Your task to perform on an android device: toggle improve location accuracy Image 0: 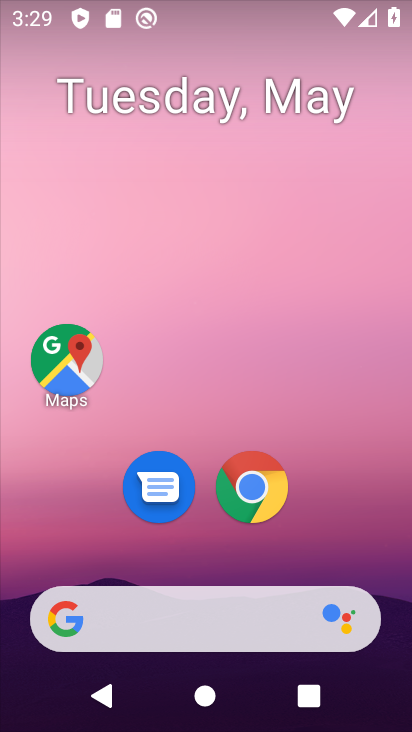
Step 0: drag from (208, 547) to (262, 78)
Your task to perform on an android device: toggle improve location accuracy Image 1: 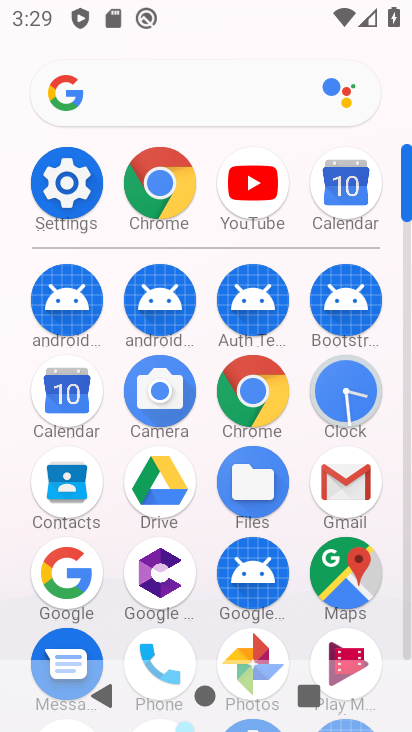
Step 1: click (68, 179)
Your task to perform on an android device: toggle improve location accuracy Image 2: 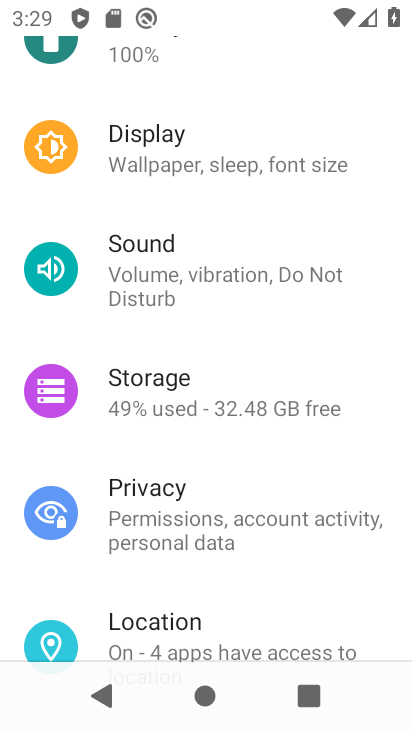
Step 2: click (216, 625)
Your task to perform on an android device: toggle improve location accuracy Image 3: 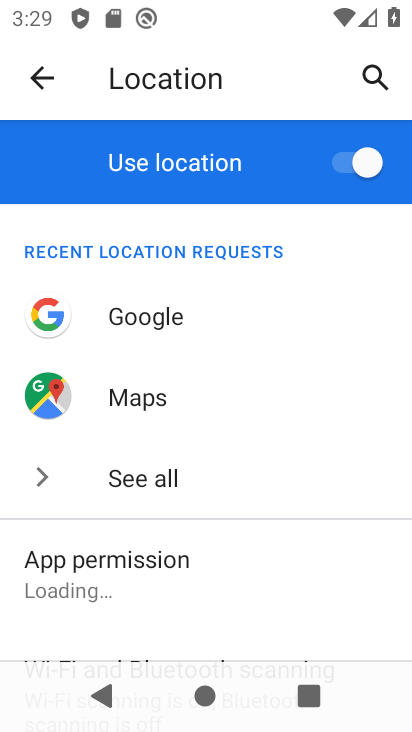
Step 3: drag from (167, 619) to (193, 406)
Your task to perform on an android device: toggle improve location accuracy Image 4: 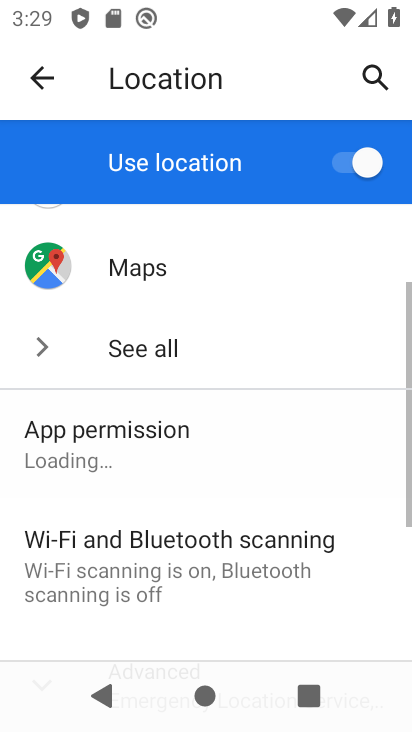
Step 4: drag from (214, 295) to (227, 196)
Your task to perform on an android device: toggle improve location accuracy Image 5: 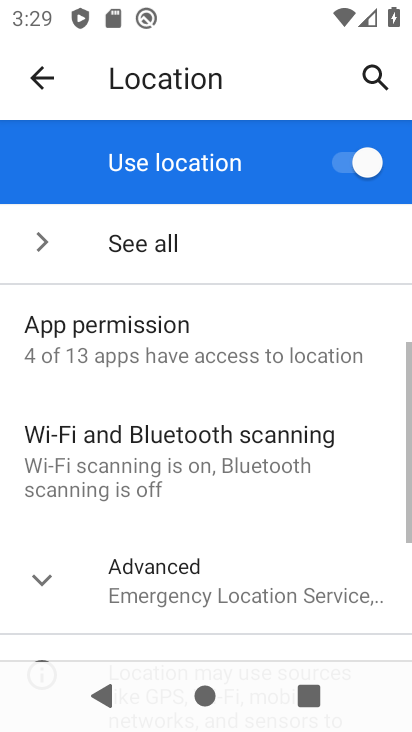
Step 5: click (39, 576)
Your task to perform on an android device: toggle improve location accuracy Image 6: 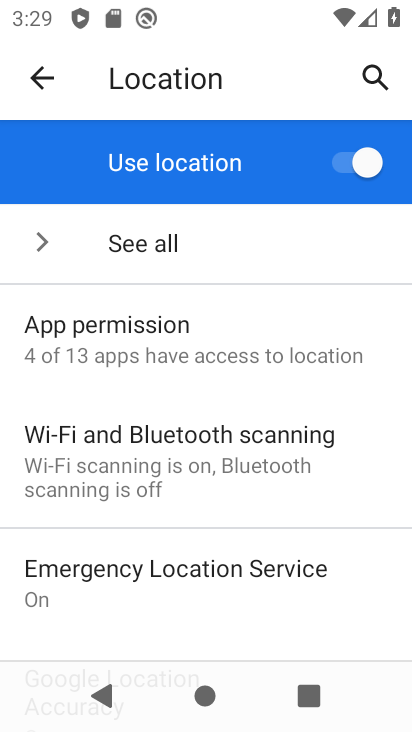
Step 6: drag from (243, 609) to (287, 177)
Your task to perform on an android device: toggle improve location accuracy Image 7: 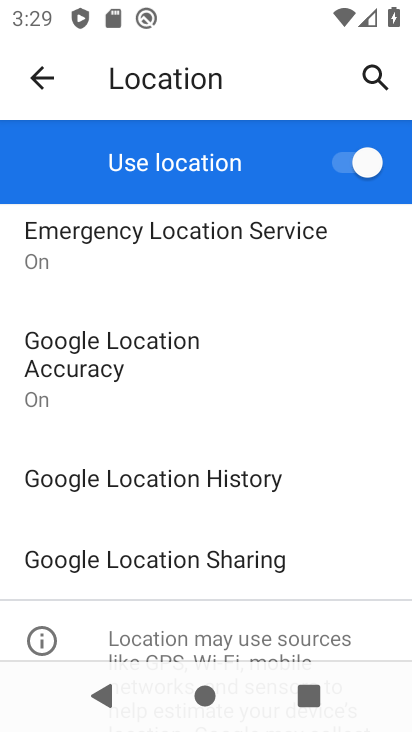
Step 7: click (146, 361)
Your task to perform on an android device: toggle improve location accuracy Image 8: 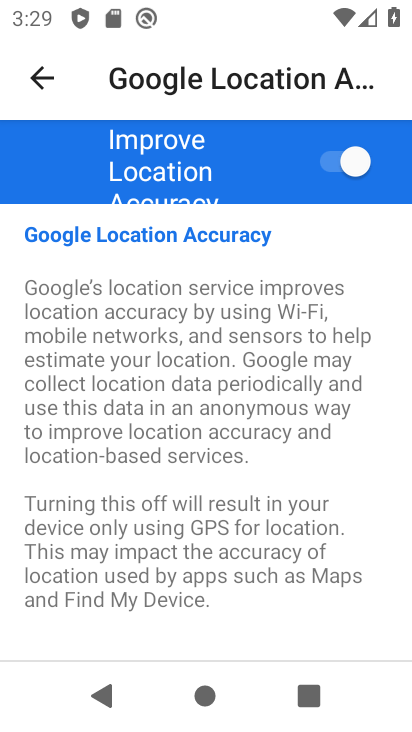
Step 8: click (335, 160)
Your task to perform on an android device: toggle improve location accuracy Image 9: 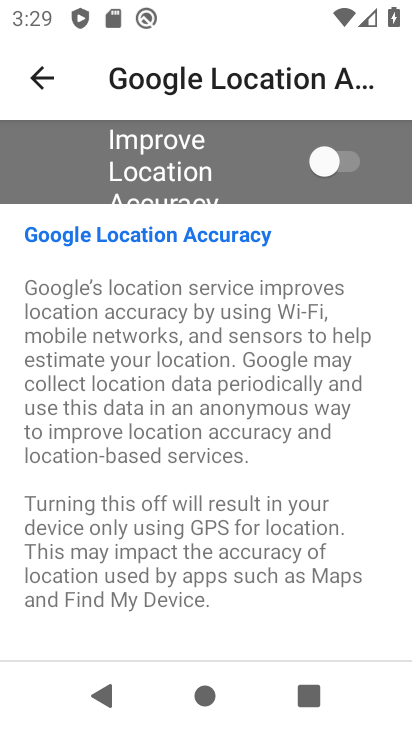
Step 9: task complete